Your task to perform on an android device: Show me the alarms in the clock app Image 0: 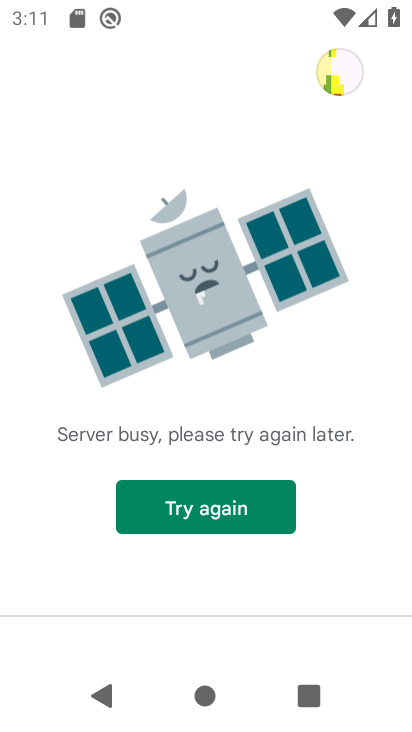
Step 0: press home button
Your task to perform on an android device: Show me the alarms in the clock app Image 1: 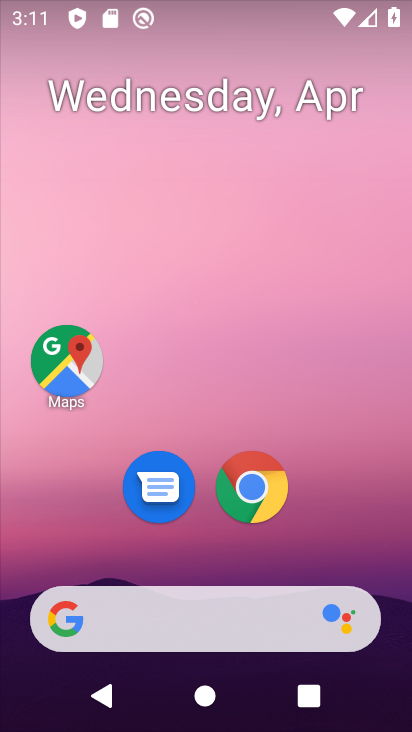
Step 1: drag from (329, 175) to (331, 53)
Your task to perform on an android device: Show me the alarms in the clock app Image 2: 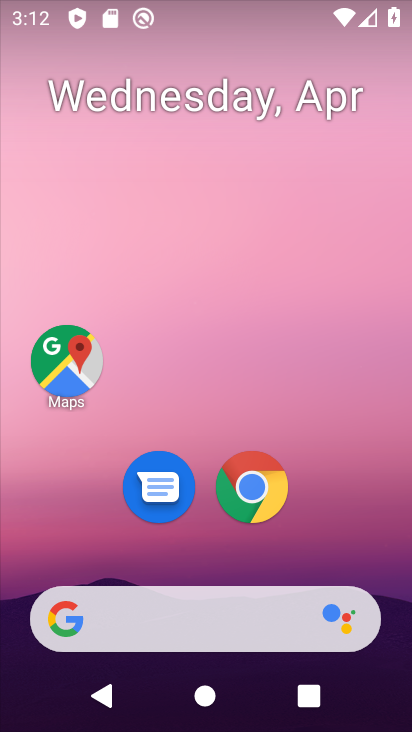
Step 2: drag from (350, 301) to (345, 44)
Your task to perform on an android device: Show me the alarms in the clock app Image 3: 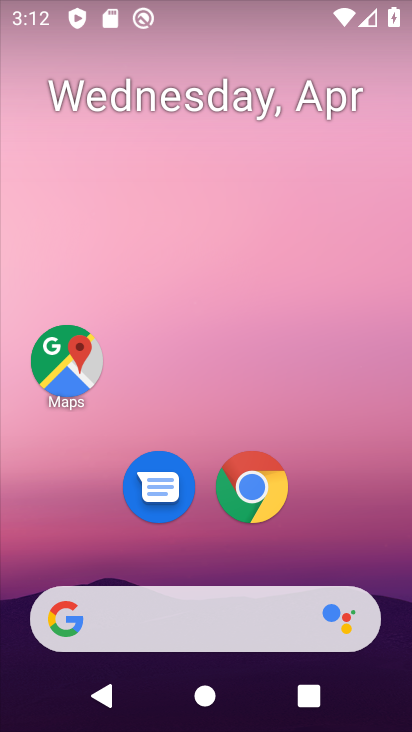
Step 3: drag from (278, 477) to (291, 3)
Your task to perform on an android device: Show me the alarms in the clock app Image 4: 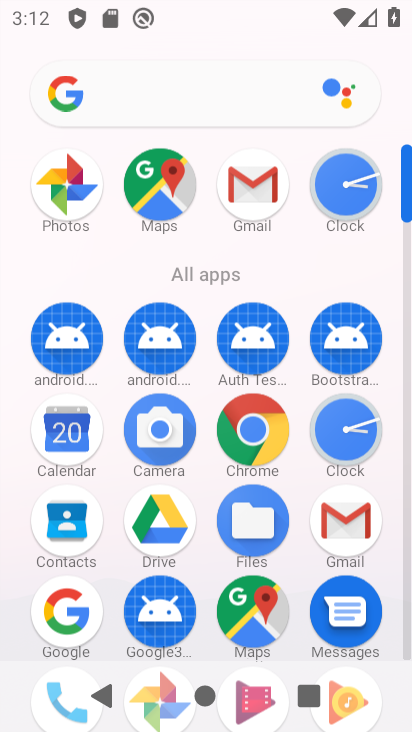
Step 4: click (340, 236)
Your task to perform on an android device: Show me the alarms in the clock app Image 5: 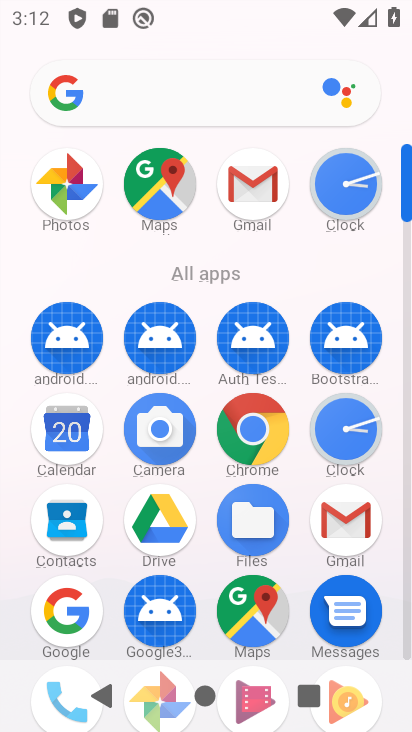
Step 5: click (352, 168)
Your task to perform on an android device: Show me the alarms in the clock app Image 6: 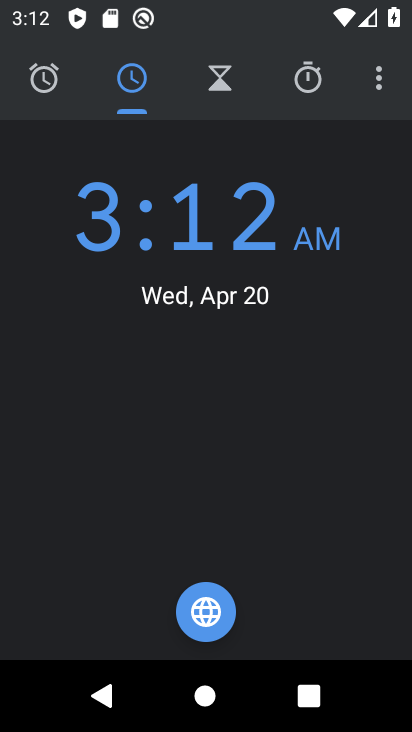
Step 6: click (28, 74)
Your task to perform on an android device: Show me the alarms in the clock app Image 7: 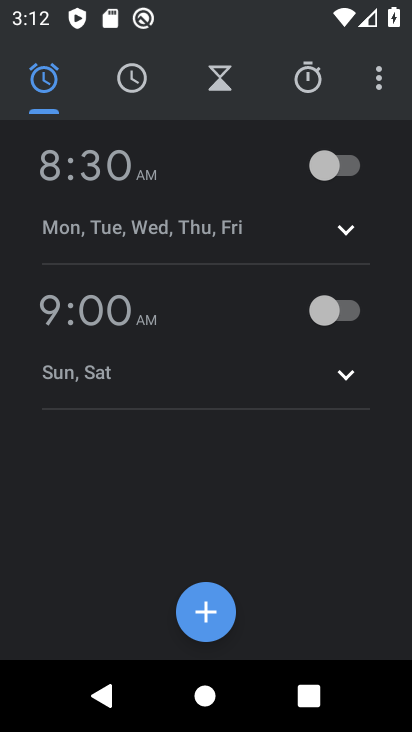
Step 7: task complete